Your task to perform on an android device: Search for vegetarian restaurants on Maps Image 0: 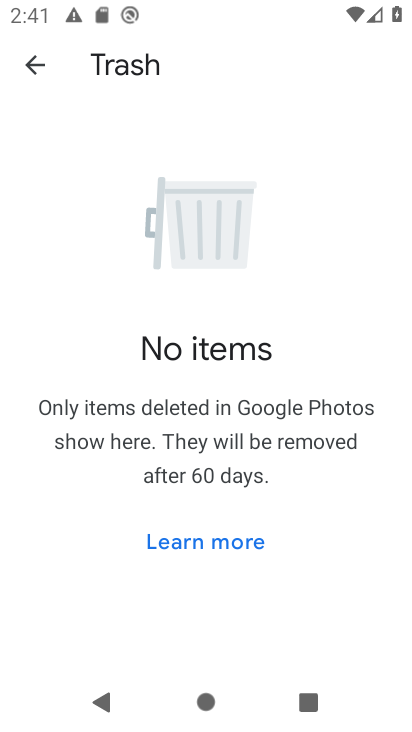
Step 0: press home button
Your task to perform on an android device: Search for vegetarian restaurants on Maps Image 1: 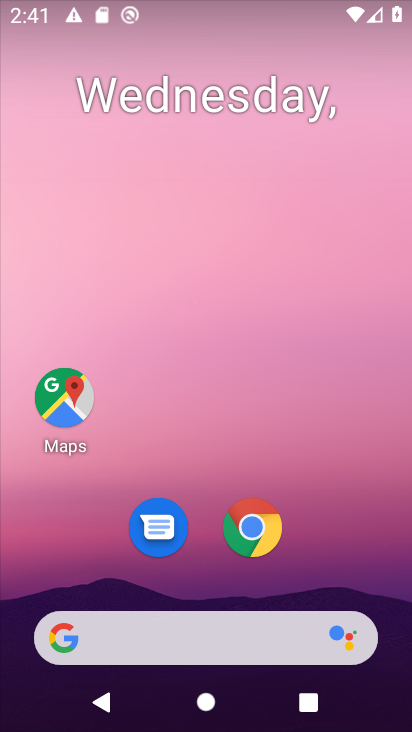
Step 1: drag from (201, 343) to (213, 75)
Your task to perform on an android device: Search for vegetarian restaurants on Maps Image 2: 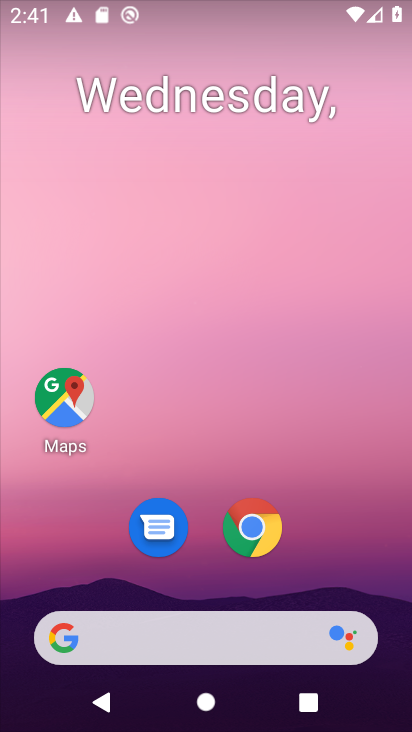
Step 2: drag from (350, 536) to (341, 144)
Your task to perform on an android device: Search for vegetarian restaurants on Maps Image 3: 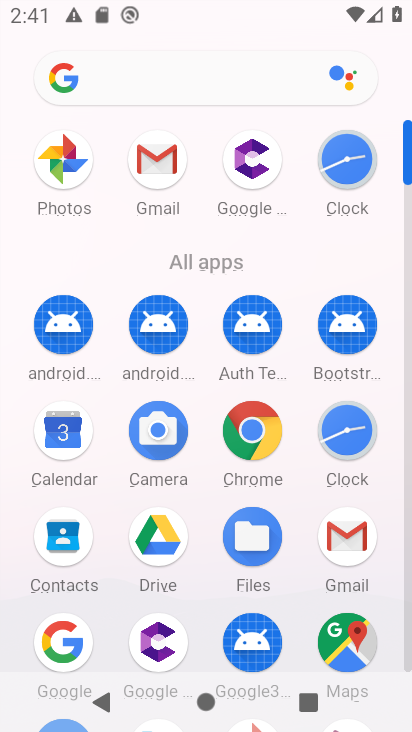
Step 3: click (341, 651)
Your task to perform on an android device: Search for vegetarian restaurants on Maps Image 4: 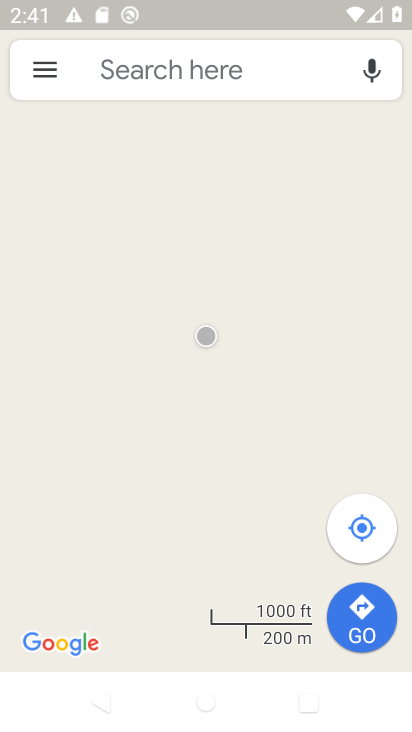
Step 4: click (149, 81)
Your task to perform on an android device: Search for vegetarian restaurants on Maps Image 5: 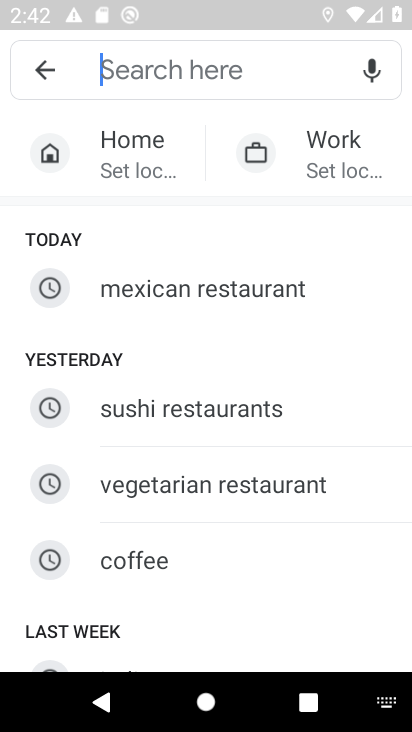
Step 5: type "Vegetarian restaurants"
Your task to perform on an android device: Search for vegetarian restaurants on Maps Image 6: 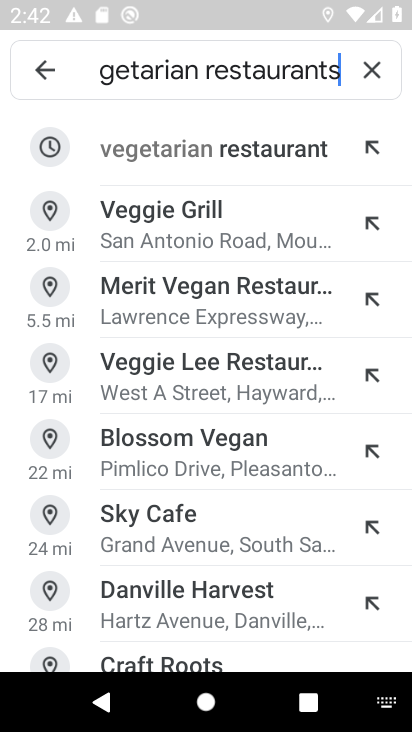
Step 6: press enter
Your task to perform on an android device: Search for vegetarian restaurants on Maps Image 7: 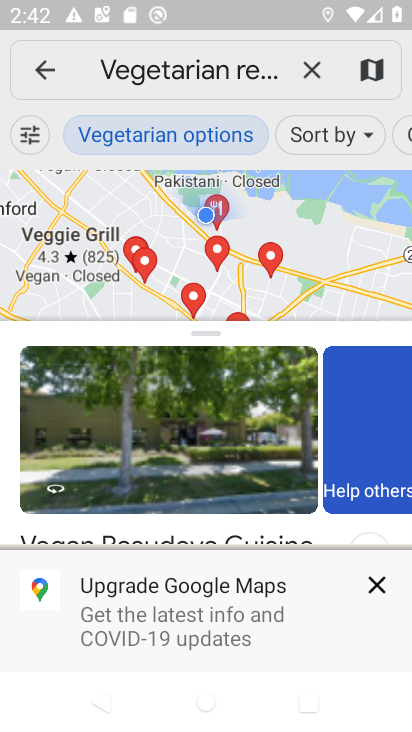
Step 7: task complete